Your task to perform on an android device: find snoozed emails in the gmail app Image 0: 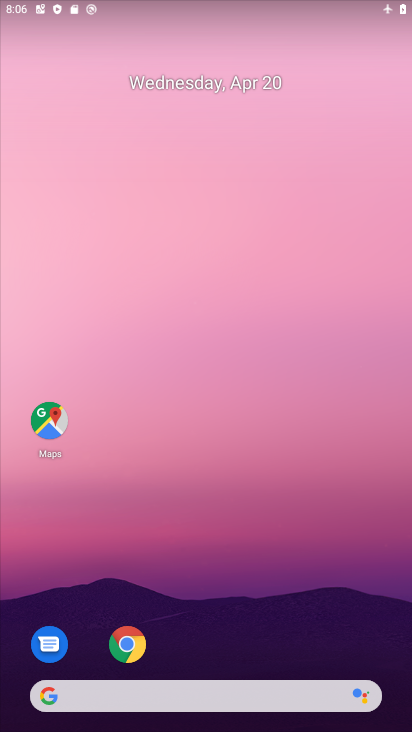
Step 0: drag from (328, 633) to (266, 119)
Your task to perform on an android device: find snoozed emails in the gmail app Image 1: 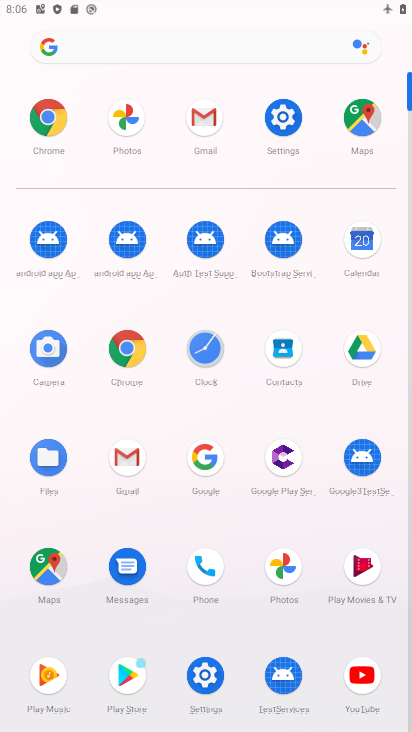
Step 1: click (135, 470)
Your task to perform on an android device: find snoozed emails in the gmail app Image 2: 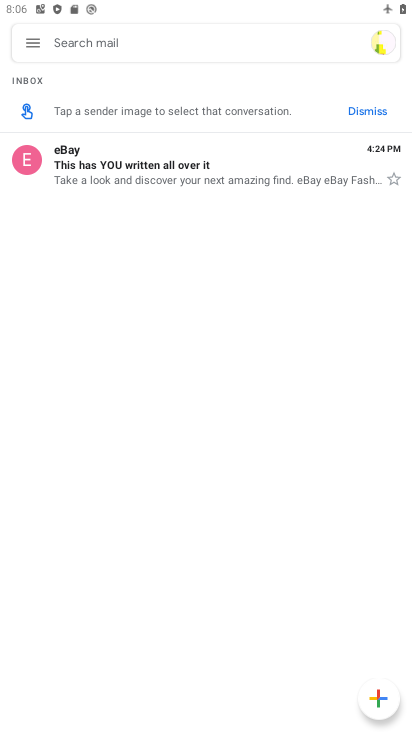
Step 2: click (40, 47)
Your task to perform on an android device: find snoozed emails in the gmail app Image 3: 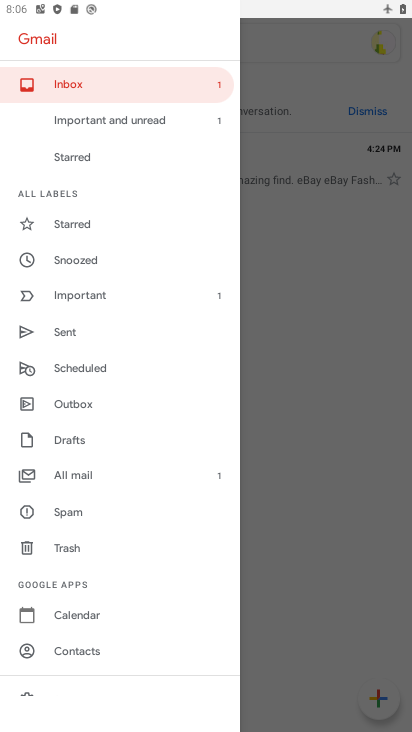
Step 3: click (120, 258)
Your task to perform on an android device: find snoozed emails in the gmail app Image 4: 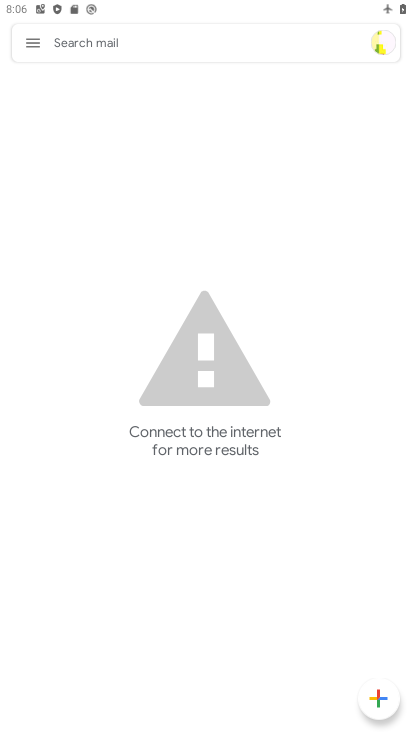
Step 4: task complete